Your task to perform on an android device: turn off notifications in google photos Image 0: 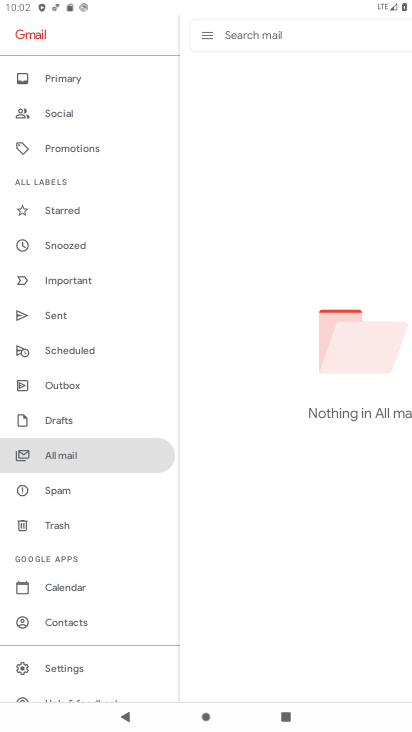
Step 0: press home button
Your task to perform on an android device: turn off notifications in google photos Image 1: 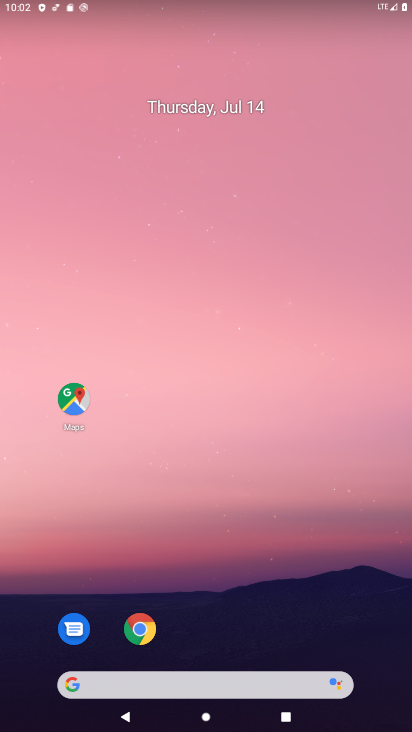
Step 1: drag from (279, 603) to (257, 98)
Your task to perform on an android device: turn off notifications in google photos Image 2: 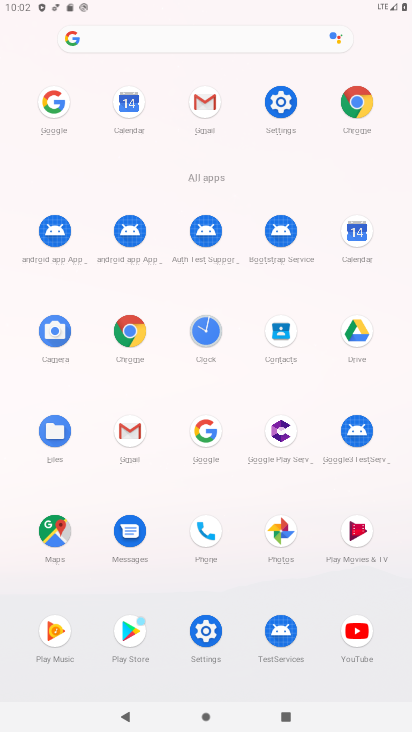
Step 2: click (287, 540)
Your task to perform on an android device: turn off notifications in google photos Image 3: 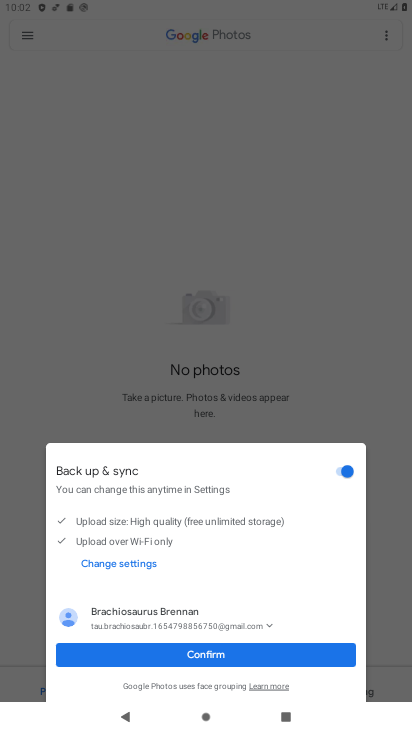
Step 3: click (219, 654)
Your task to perform on an android device: turn off notifications in google photos Image 4: 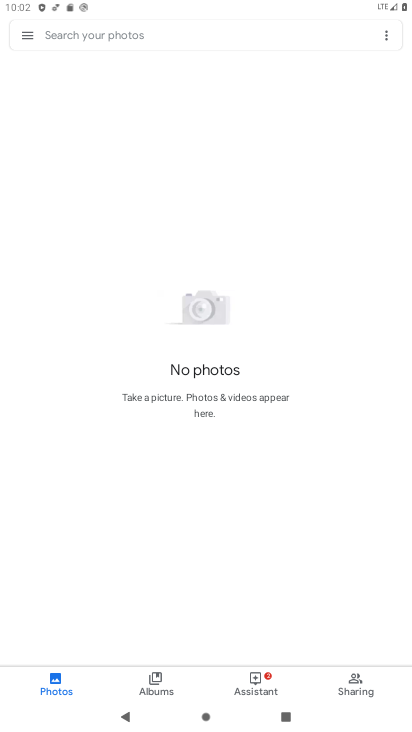
Step 4: click (28, 41)
Your task to perform on an android device: turn off notifications in google photos Image 5: 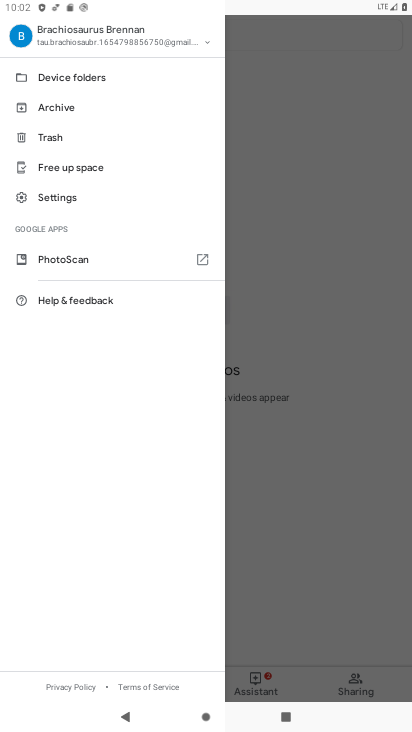
Step 5: click (63, 209)
Your task to perform on an android device: turn off notifications in google photos Image 6: 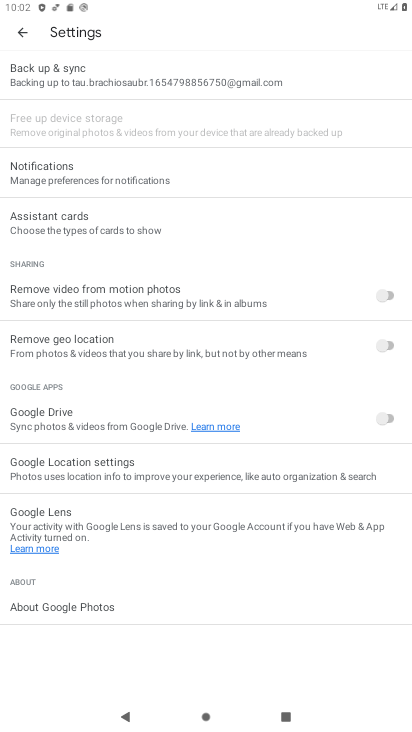
Step 6: click (78, 175)
Your task to perform on an android device: turn off notifications in google photos Image 7: 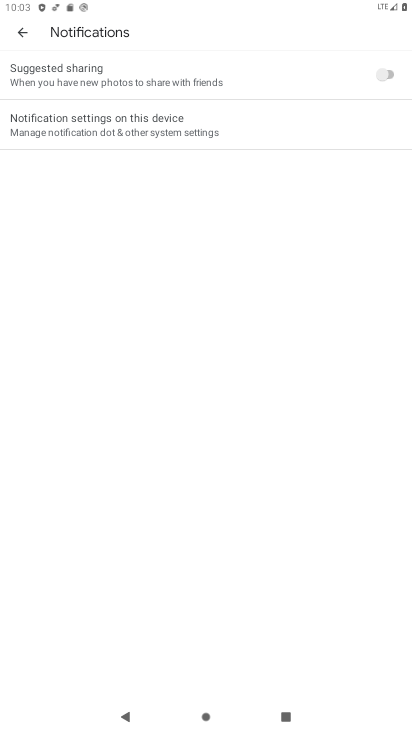
Step 7: click (142, 124)
Your task to perform on an android device: turn off notifications in google photos Image 8: 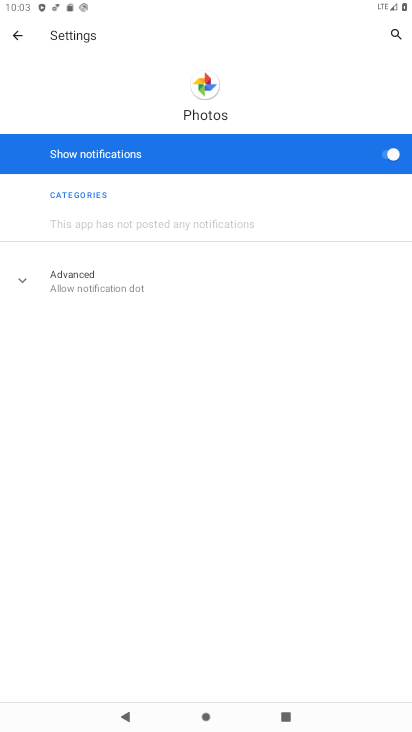
Step 8: click (397, 157)
Your task to perform on an android device: turn off notifications in google photos Image 9: 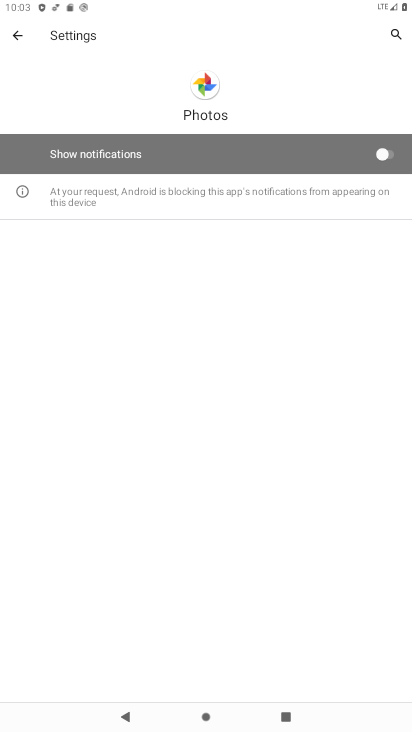
Step 9: task complete